Your task to perform on an android device: show emergency info Image 0: 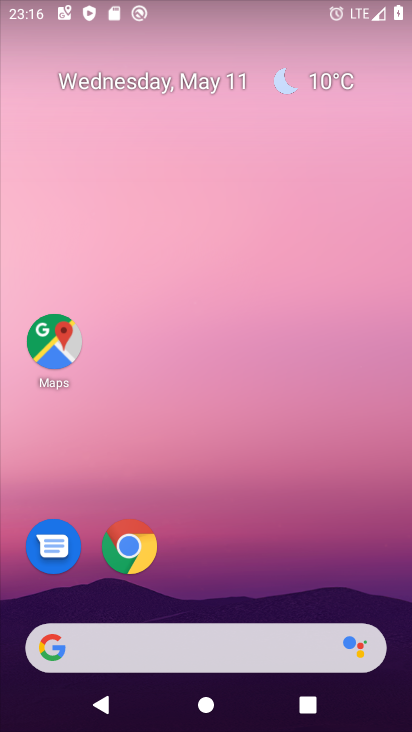
Step 0: drag from (402, 625) to (325, 162)
Your task to perform on an android device: show emergency info Image 1: 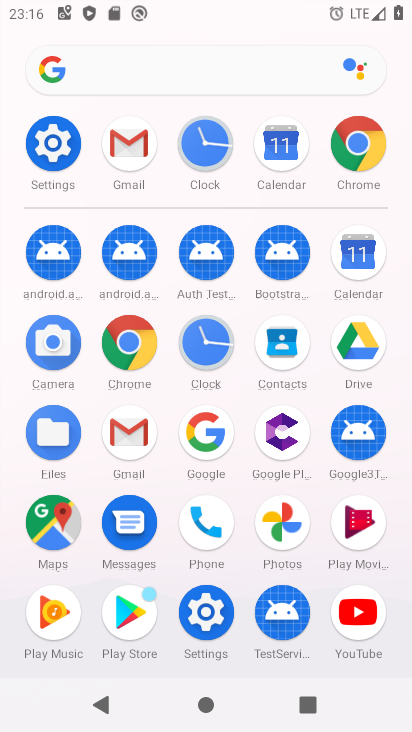
Step 1: click (206, 612)
Your task to perform on an android device: show emergency info Image 2: 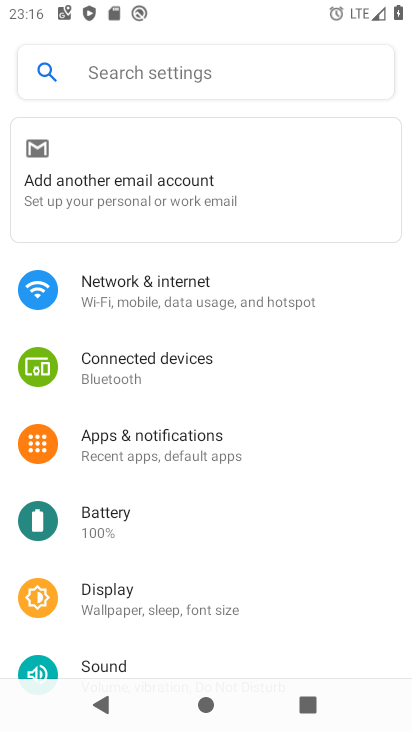
Step 2: drag from (203, 613) to (263, 141)
Your task to perform on an android device: show emergency info Image 3: 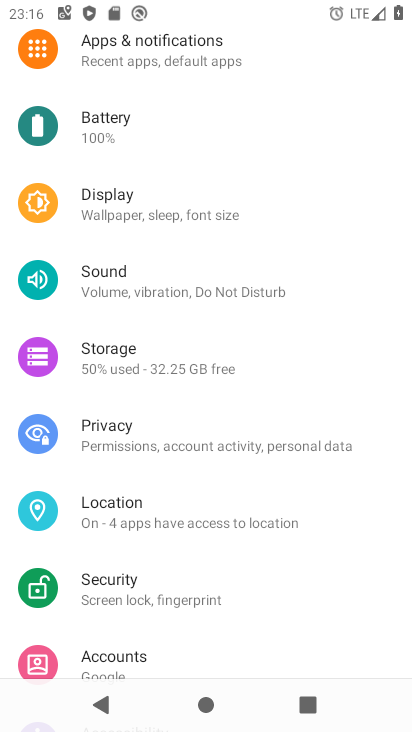
Step 3: drag from (344, 612) to (287, 25)
Your task to perform on an android device: show emergency info Image 4: 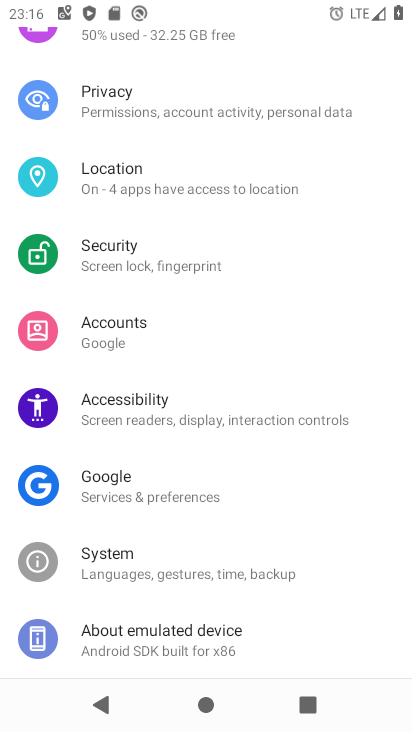
Step 4: click (130, 632)
Your task to perform on an android device: show emergency info Image 5: 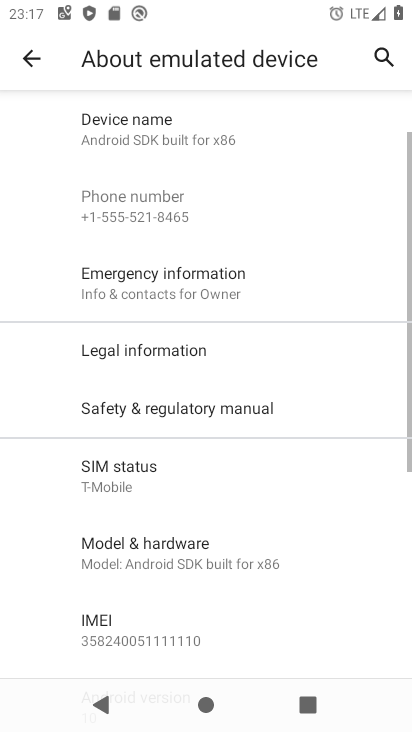
Step 5: click (139, 280)
Your task to perform on an android device: show emergency info Image 6: 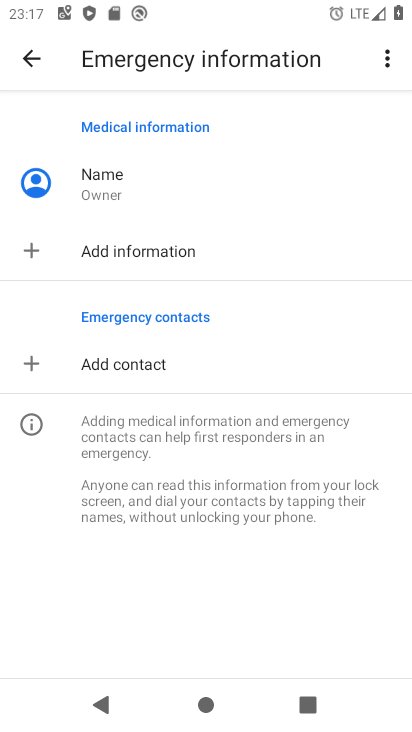
Step 6: task complete